Your task to perform on an android device: Open privacy settings Image 0: 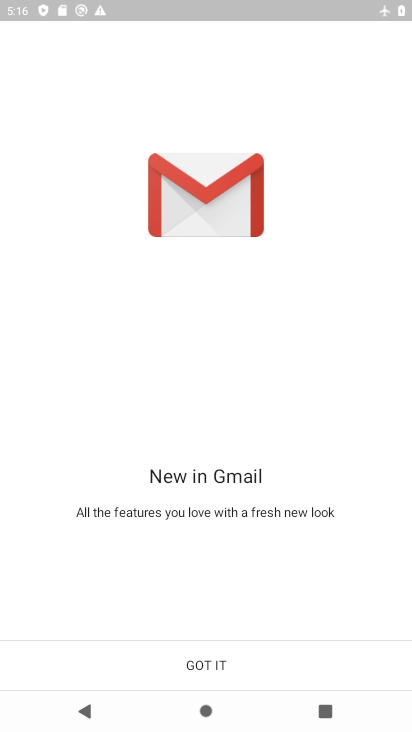
Step 0: press home button
Your task to perform on an android device: Open privacy settings Image 1: 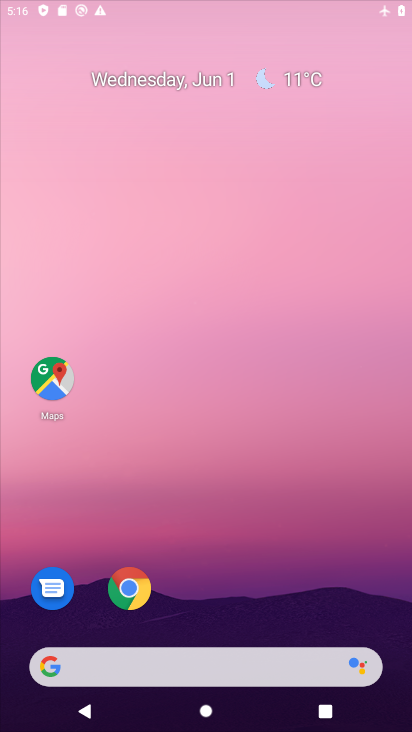
Step 1: drag from (202, 660) to (312, 28)
Your task to perform on an android device: Open privacy settings Image 2: 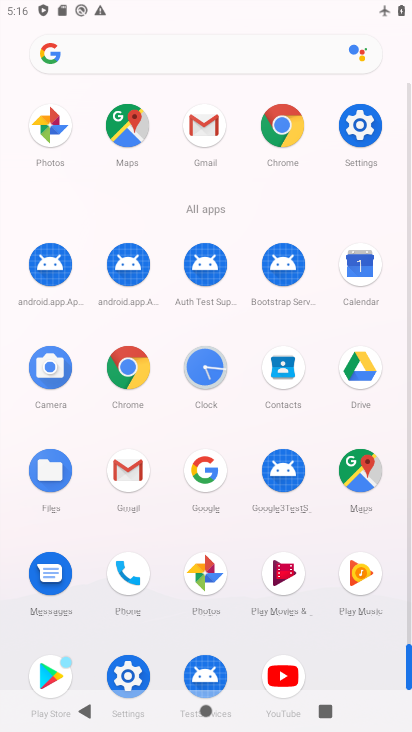
Step 2: click (148, 344)
Your task to perform on an android device: Open privacy settings Image 3: 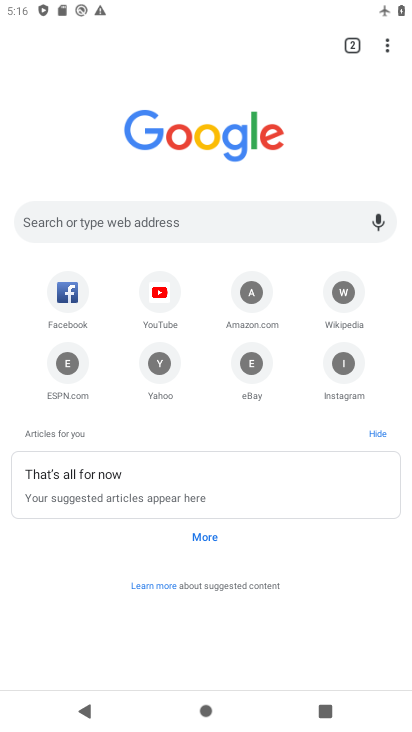
Step 3: click (391, 33)
Your task to perform on an android device: Open privacy settings Image 4: 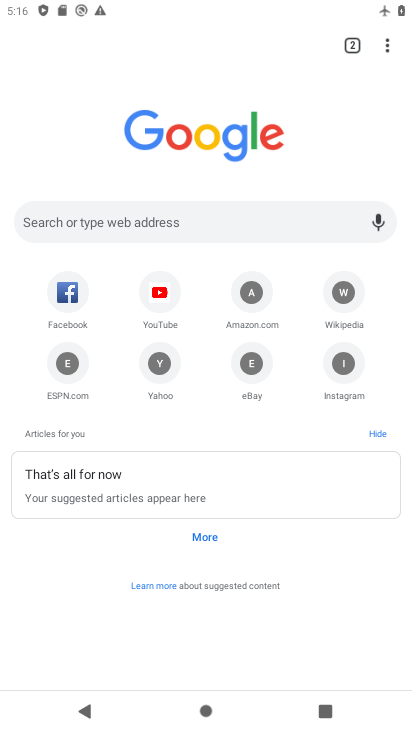
Step 4: drag from (388, 43) to (262, 387)
Your task to perform on an android device: Open privacy settings Image 5: 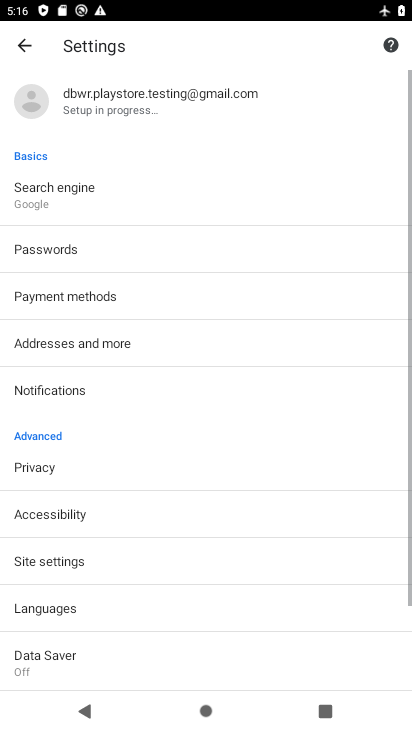
Step 5: click (148, 478)
Your task to perform on an android device: Open privacy settings Image 6: 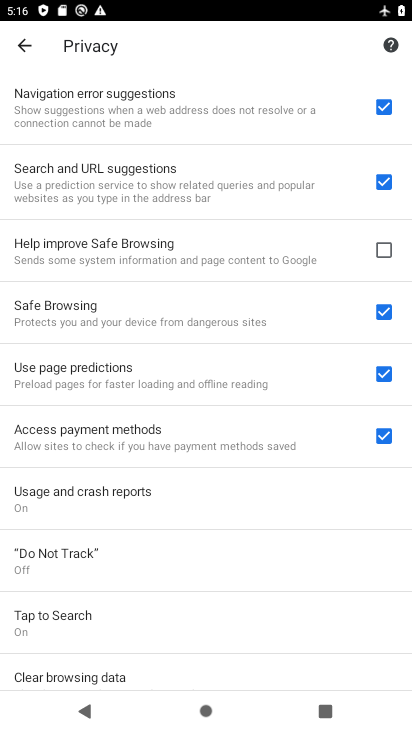
Step 6: task complete